Your task to perform on an android device: Go to Google Image 0: 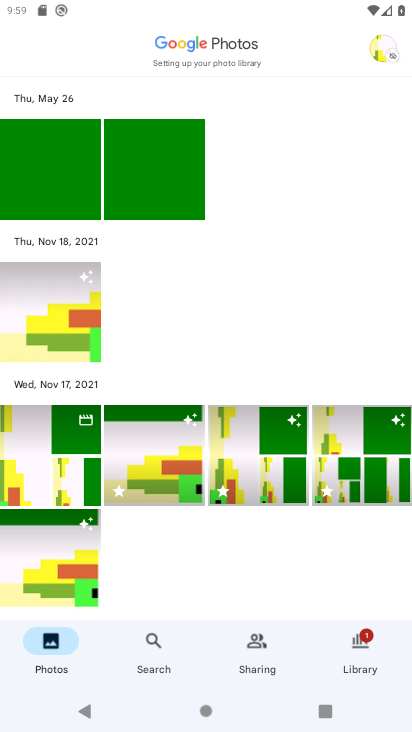
Step 0: press back button
Your task to perform on an android device: Go to Google Image 1: 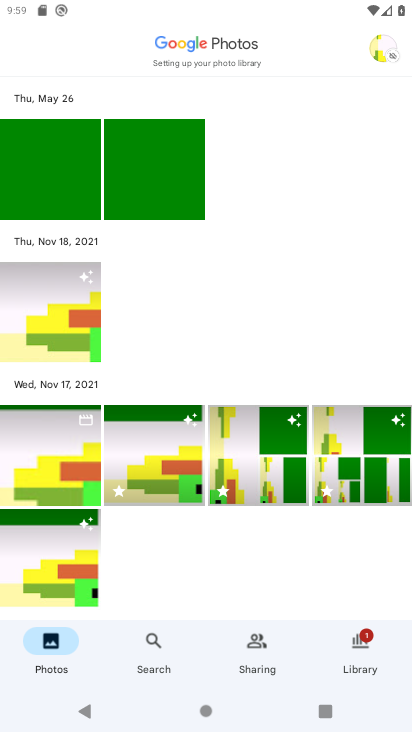
Step 1: press back button
Your task to perform on an android device: Go to Google Image 2: 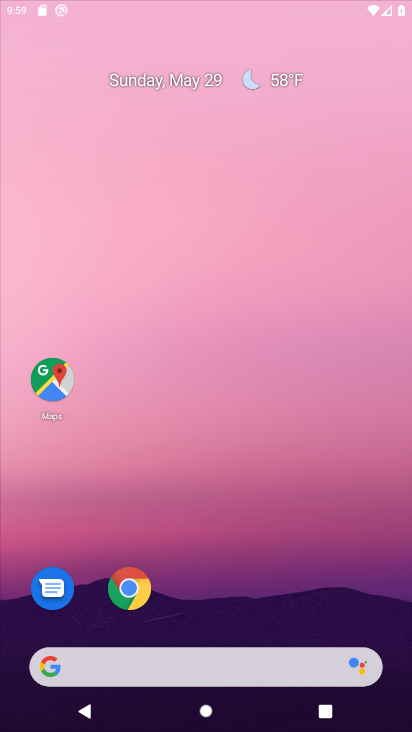
Step 2: press back button
Your task to perform on an android device: Go to Google Image 3: 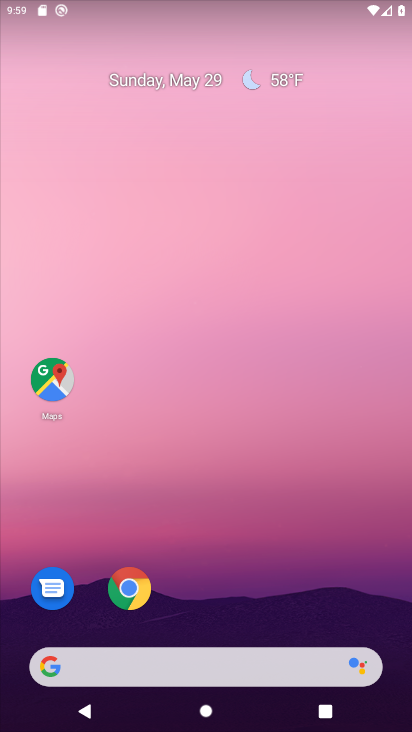
Step 3: drag from (254, 640) to (180, 154)
Your task to perform on an android device: Go to Google Image 4: 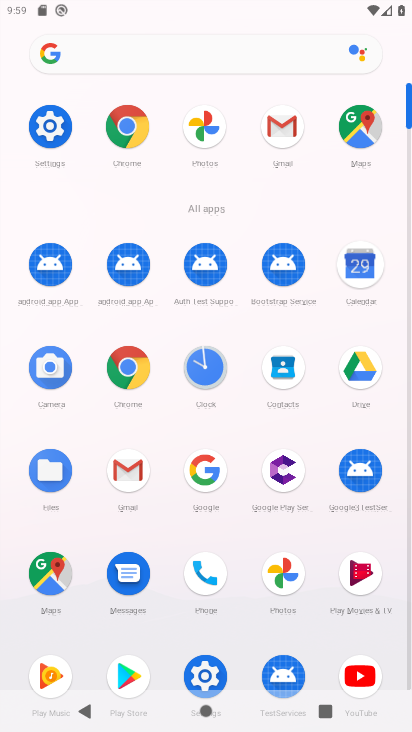
Step 4: click (201, 462)
Your task to perform on an android device: Go to Google Image 5: 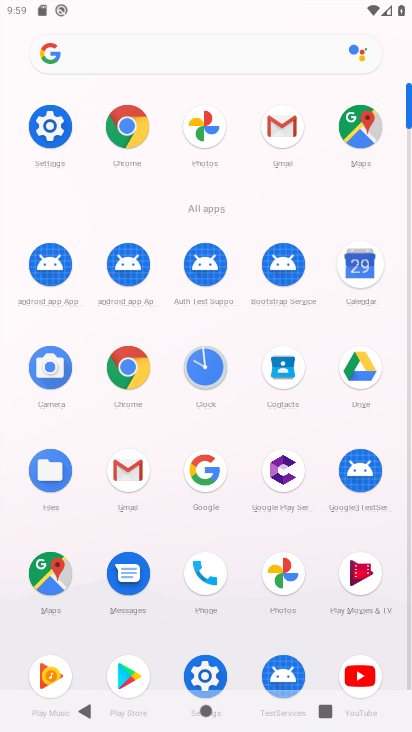
Step 5: click (201, 462)
Your task to perform on an android device: Go to Google Image 6: 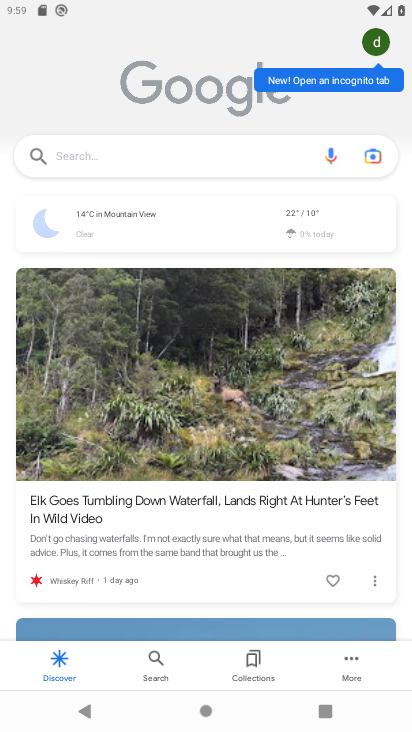
Step 6: task complete